Your task to perform on an android device: turn off notifications settings in the gmail app Image 0: 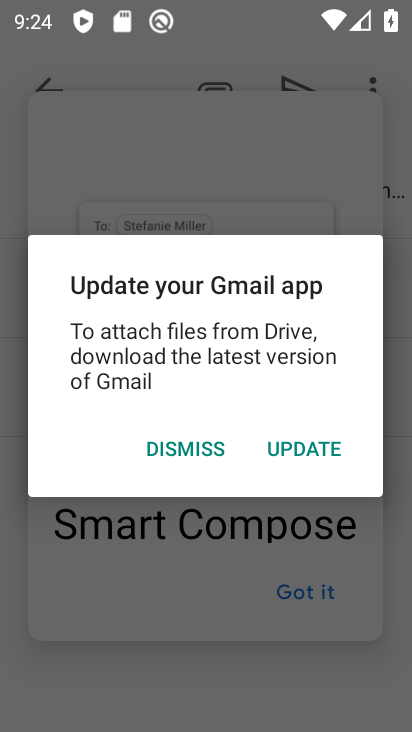
Step 0: press home button
Your task to perform on an android device: turn off notifications settings in the gmail app Image 1: 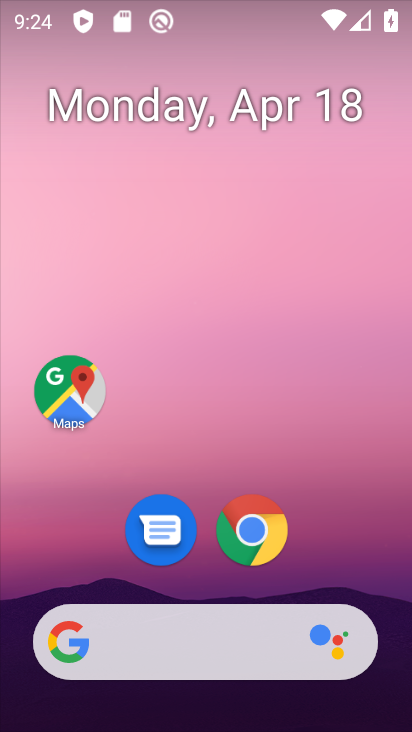
Step 1: drag from (351, 575) to (373, 64)
Your task to perform on an android device: turn off notifications settings in the gmail app Image 2: 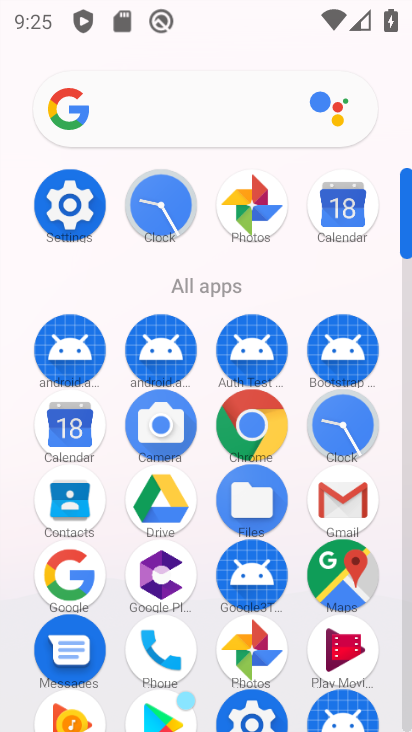
Step 2: click (346, 505)
Your task to perform on an android device: turn off notifications settings in the gmail app Image 3: 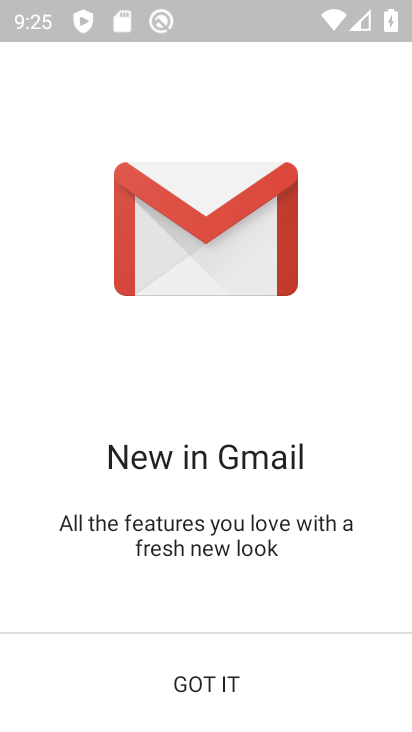
Step 3: click (186, 679)
Your task to perform on an android device: turn off notifications settings in the gmail app Image 4: 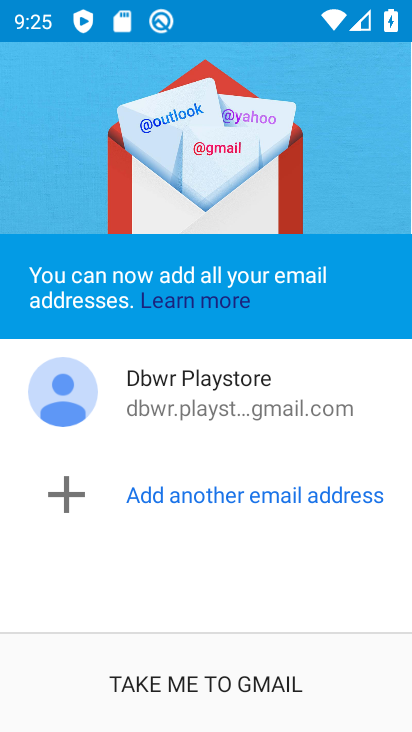
Step 4: click (178, 685)
Your task to perform on an android device: turn off notifications settings in the gmail app Image 5: 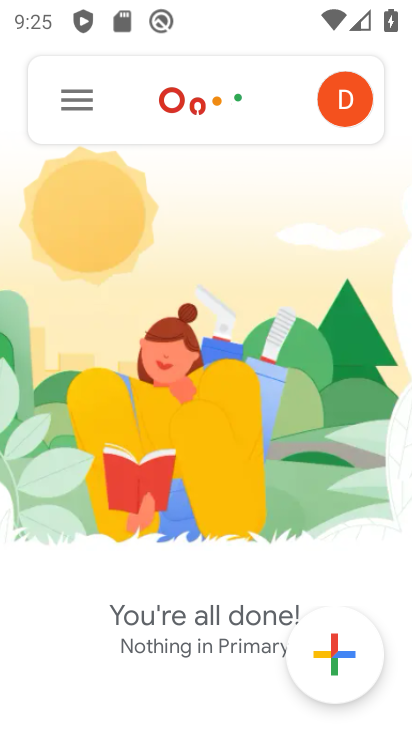
Step 5: click (84, 103)
Your task to perform on an android device: turn off notifications settings in the gmail app Image 6: 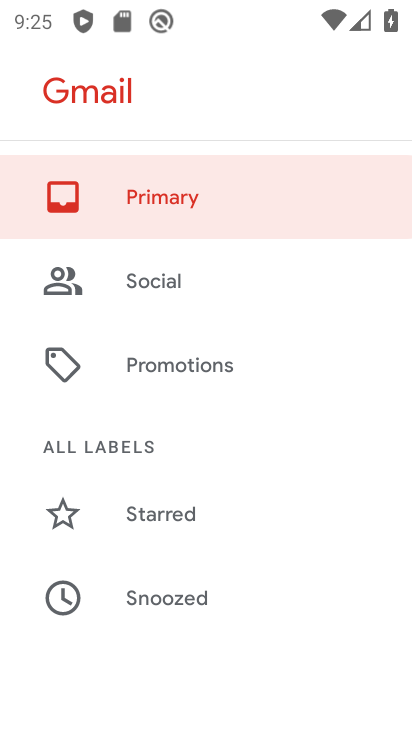
Step 6: drag from (249, 598) to (228, 171)
Your task to perform on an android device: turn off notifications settings in the gmail app Image 7: 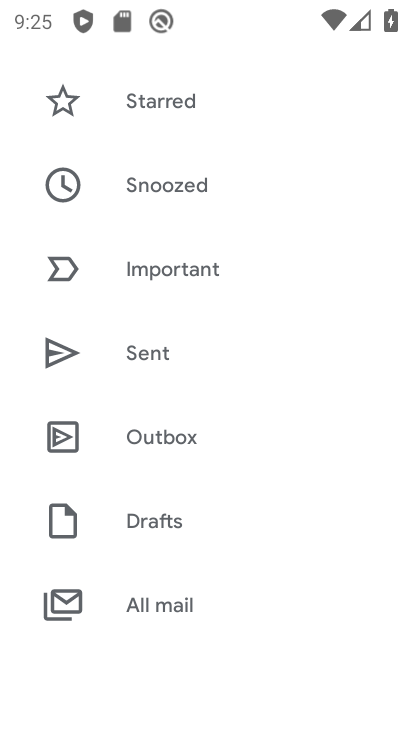
Step 7: drag from (250, 599) to (231, 142)
Your task to perform on an android device: turn off notifications settings in the gmail app Image 8: 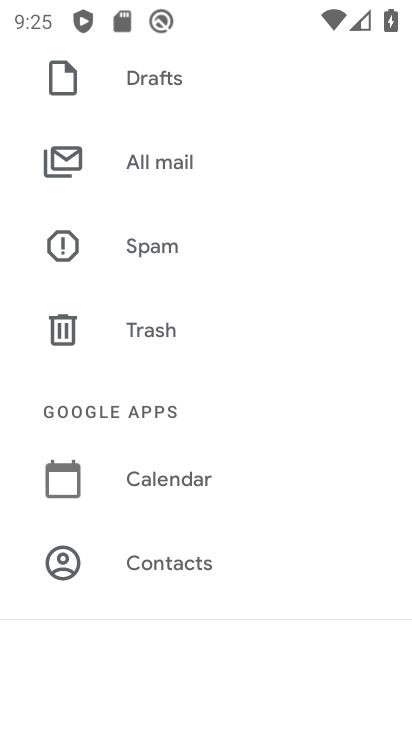
Step 8: drag from (241, 523) to (237, 153)
Your task to perform on an android device: turn off notifications settings in the gmail app Image 9: 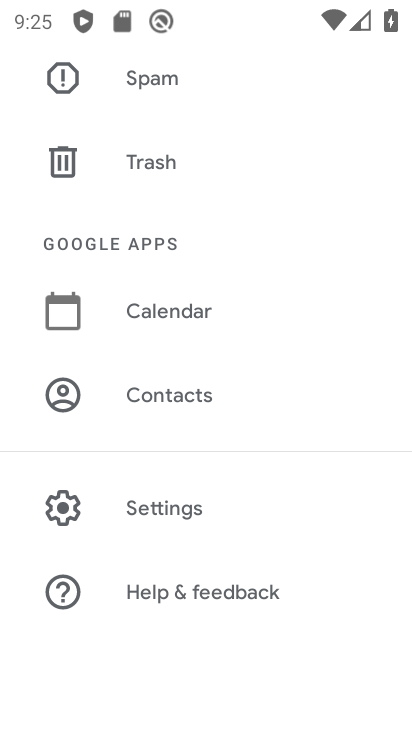
Step 9: click (171, 507)
Your task to perform on an android device: turn off notifications settings in the gmail app Image 10: 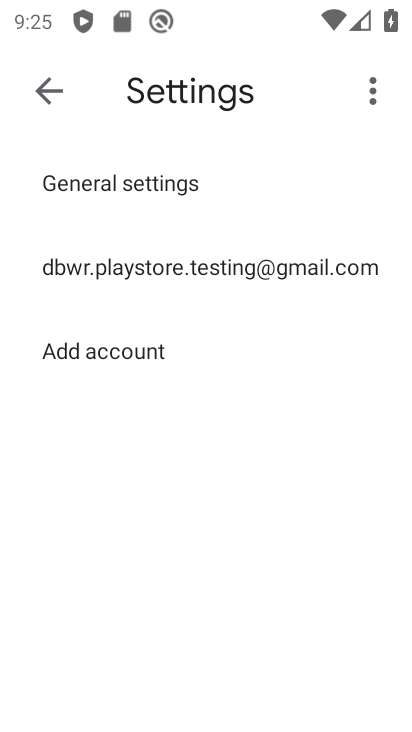
Step 10: click (113, 189)
Your task to perform on an android device: turn off notifications settings in the gmail app Image 11: 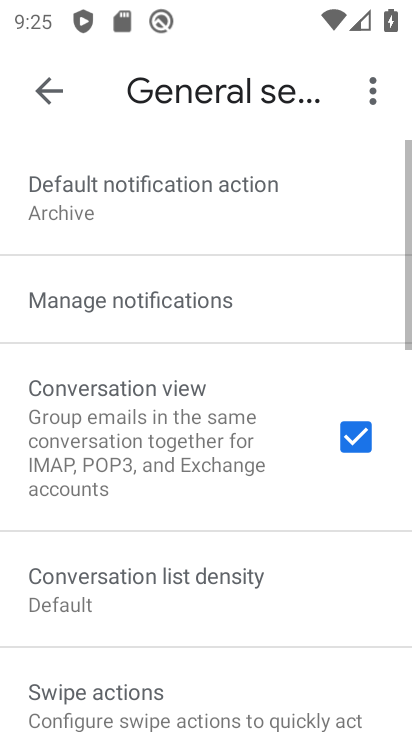
Step 11: click (106, 305)
Your task to perform on an android device: turn off notifications settings in the gmail app Image 12: 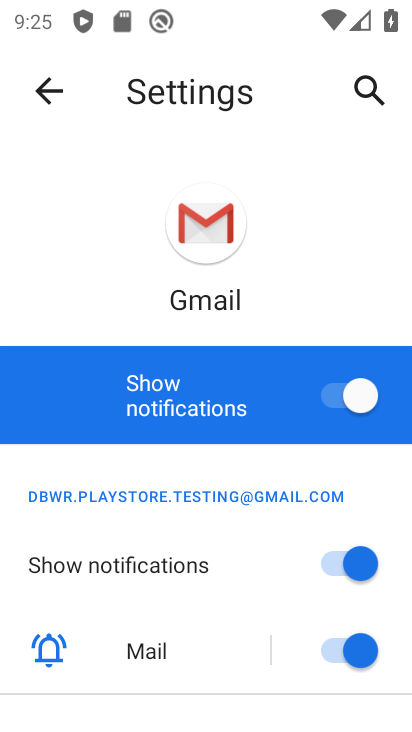
Step 12: click (360, 377)
Your task to perform on an android device: turn off notifications settings in the gmail app Image 13: 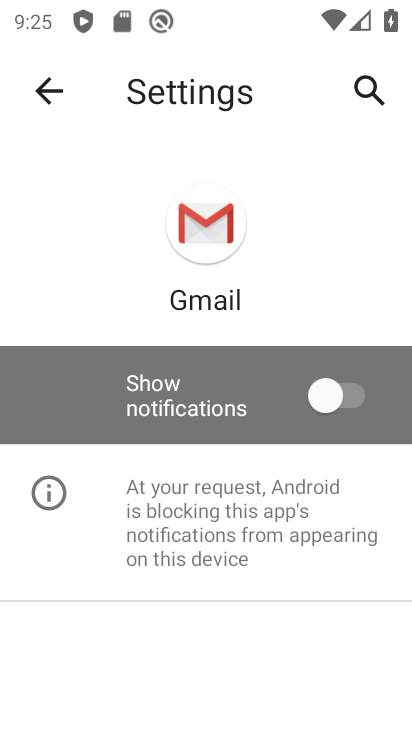
Step 13: task complete